Your task to perform on an android device: turn on wifi Image 0: 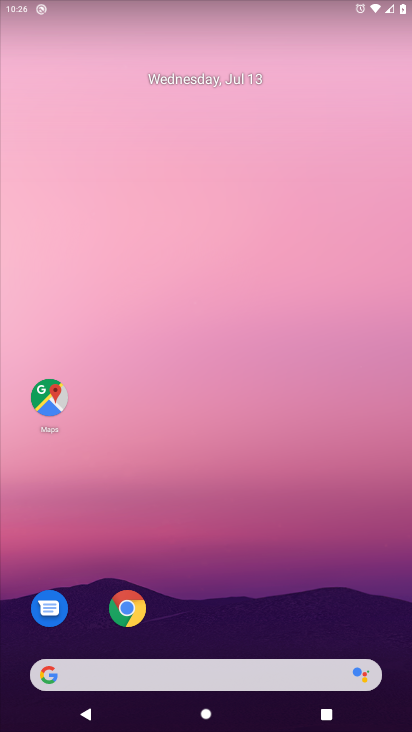
Step 0: drag from (97, 616) to (10, 727)
Your task to perform on an android device: turn on wifi Image 1: 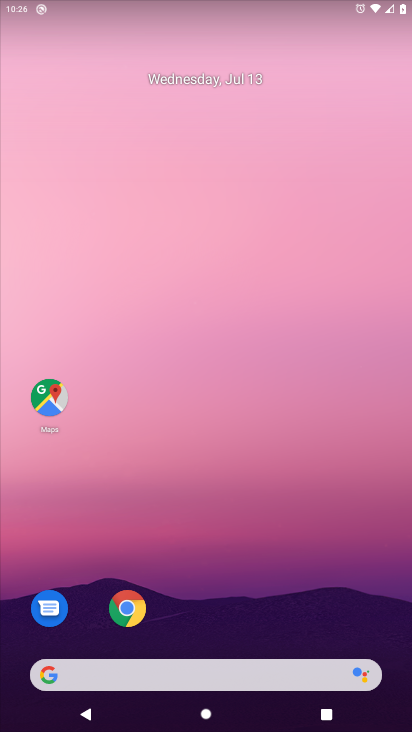
Step 1: drag from (146, 441) to (259, 50)
Your task to perform on an android device: turn on wifi Image 2: 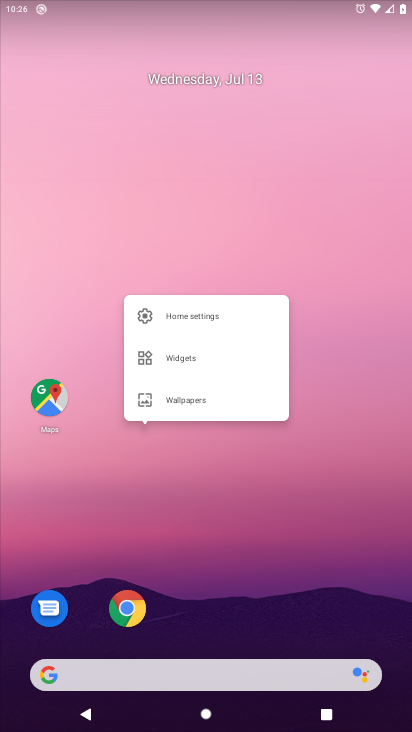
Step 2: drag from (231, 53) to (236, 4)
Your task to perform on an android device: turn on wifi Image 3: 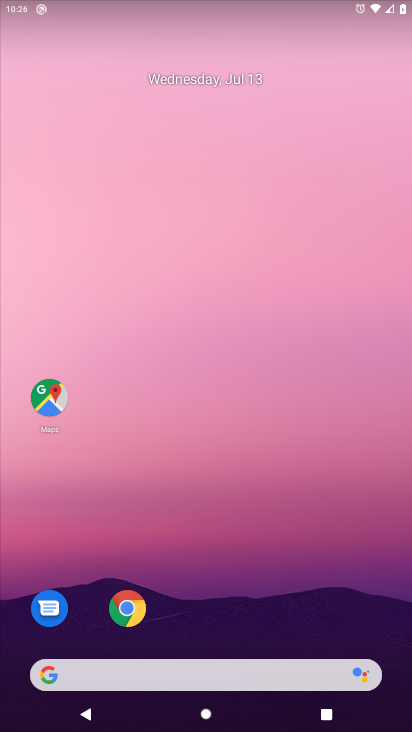
Step 3: drag from (68, 582) to (175, 178)
Your task to perform on an android device: turn on wifi Image 4: 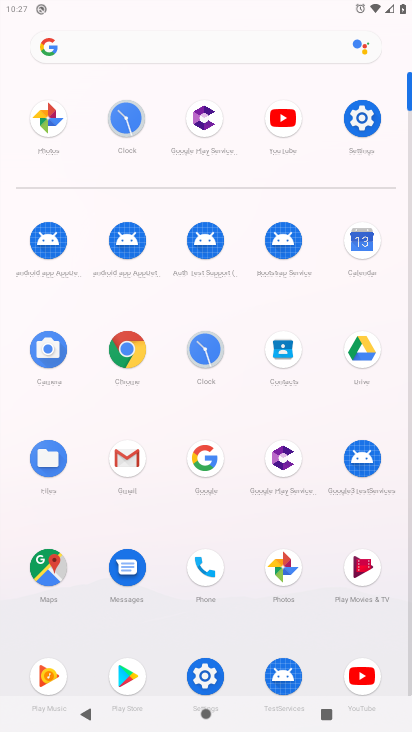
Step 4: click (196, 660)
Your task to perform on an android device: turn on wifi Image 5: 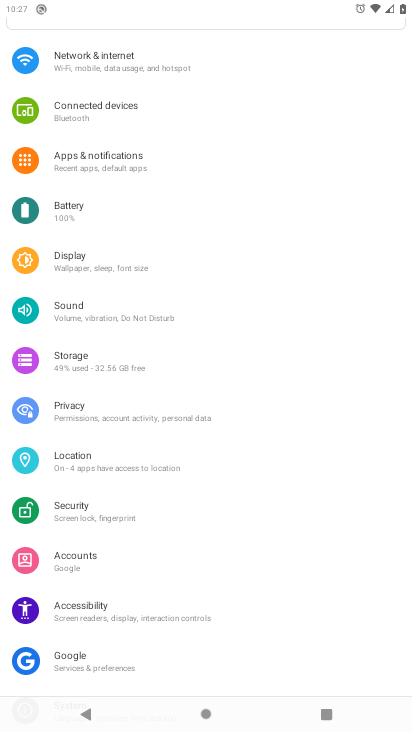
Step 5: click (102, 49)
Your task to perform on an android device: turn on wifi Image 6: 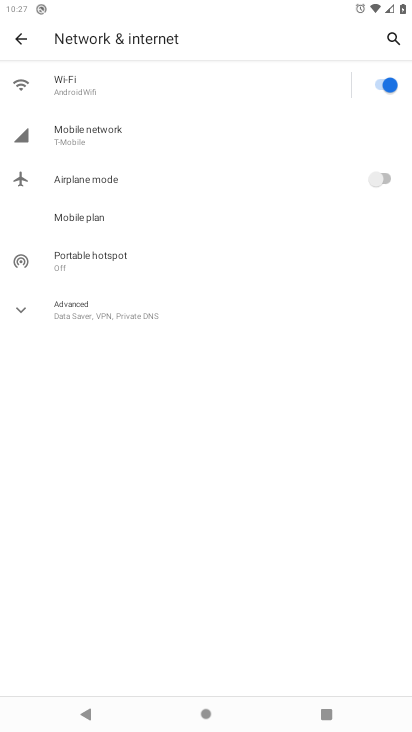
Step 6: task complete